Your task to perform on an android device: change the upload size in google photos Image 0: 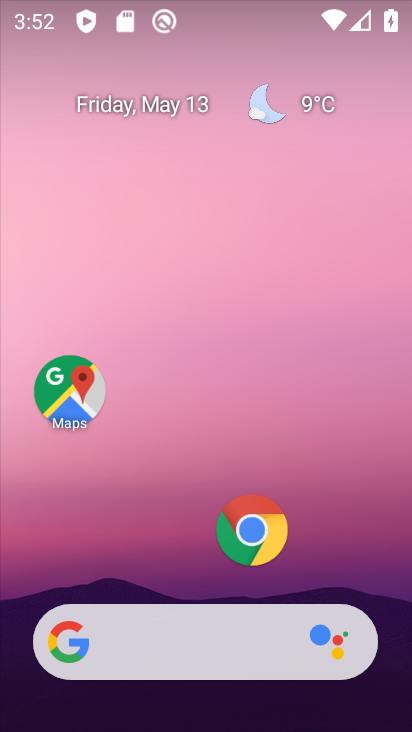
Step 0: drag from (185, 565) to (174, 0)
Your task to perform on an android device: change the upload size in google photos Image 1: 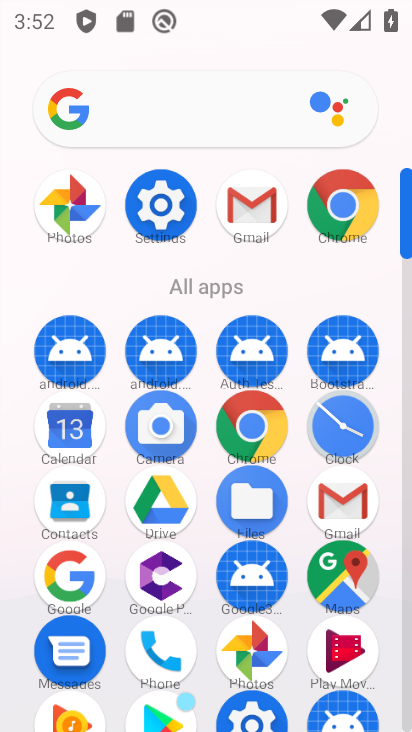
Step 1: click (75, 204)
Your task to perform on an android device: change the upload size in google photos Image 2: 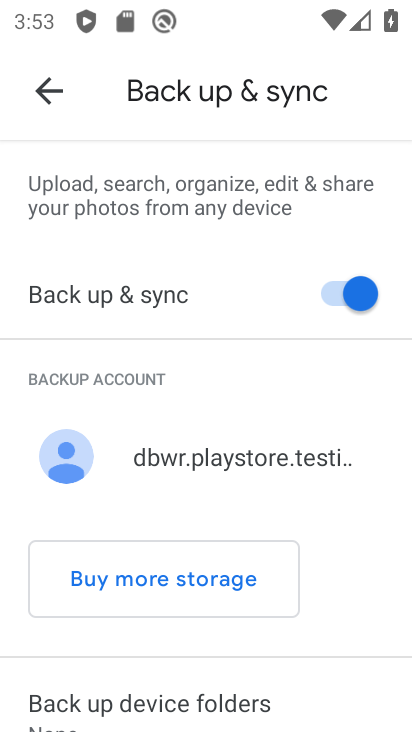
Step 2: press home button
Your task to perform on an android device: change the upload size in google photos Image 3: 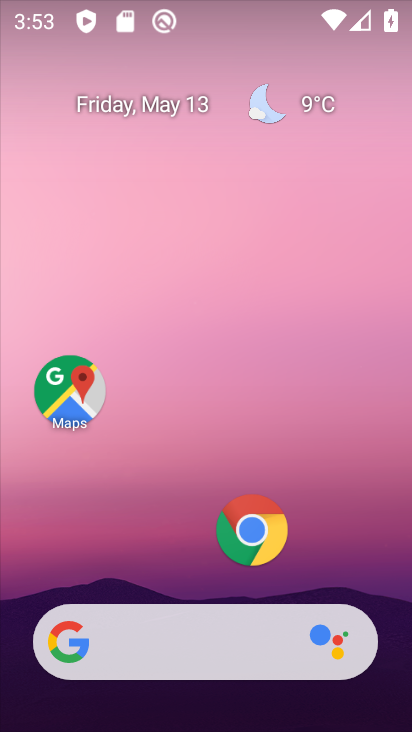
Step 3: drag from (193, 578) to (184, 3)
Your task to perform on an android device: change the upload size in google photos Image 4: 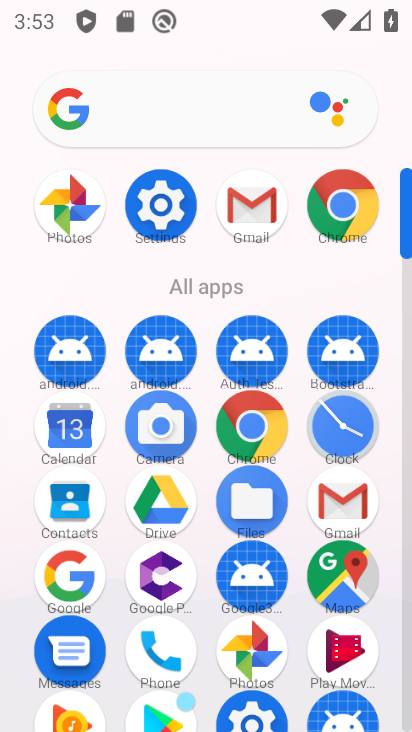
Step 4: click (68, 199)
Your task to perform on an android device: change the upload size in google photos Image 5: 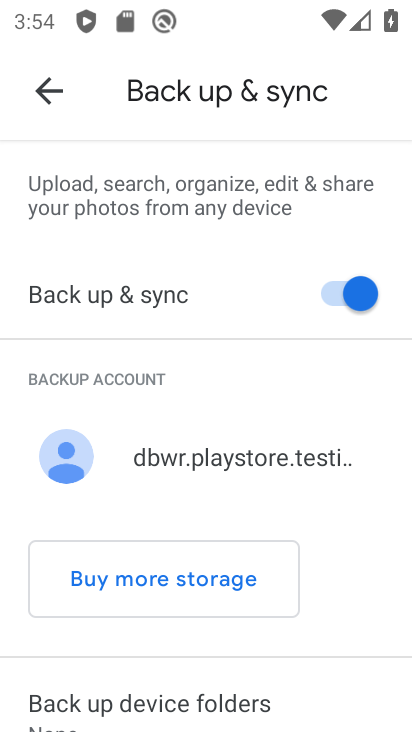
Step 5: drag from (243, 668) to (238, 128)
Your task to perform on an android device: change the upload size in google photos Image 6: 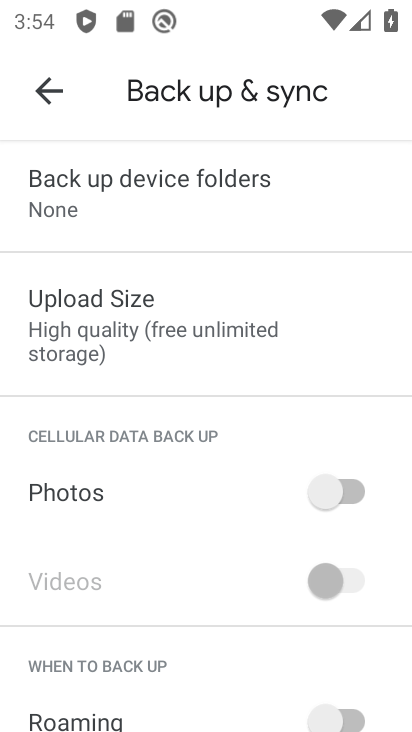
Step 6: click (146, 315)
Your task to perform on an android device: change the upload size in google photos Image 7: 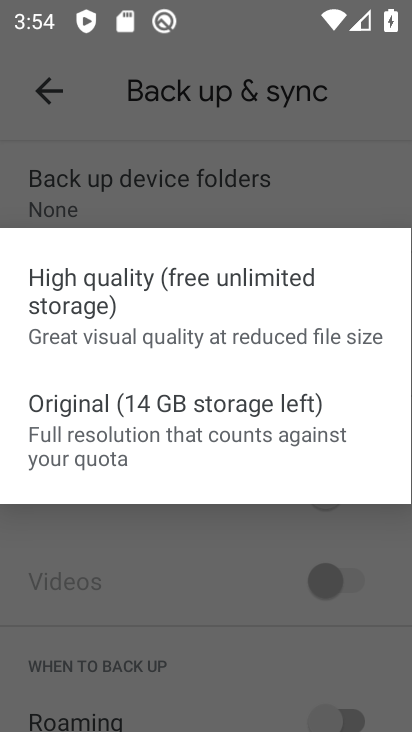
Step 7: click (173, 443)
Your task to perform on an android device: change the upload size in google photos Image 8: 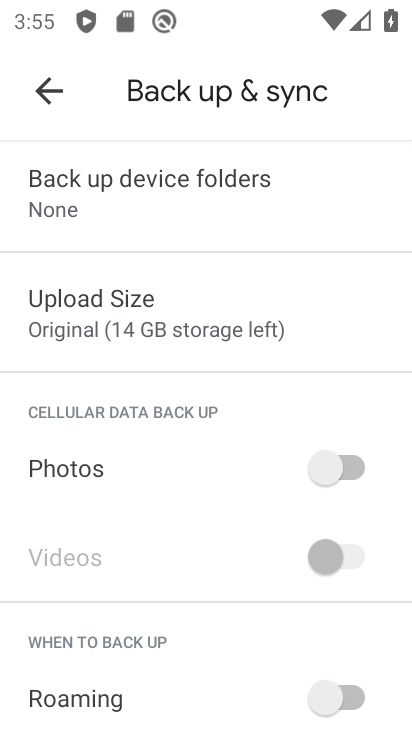
Step 8: click (183, 309)
Your task to perform on an android device: change the upload size in google photos Image 9: 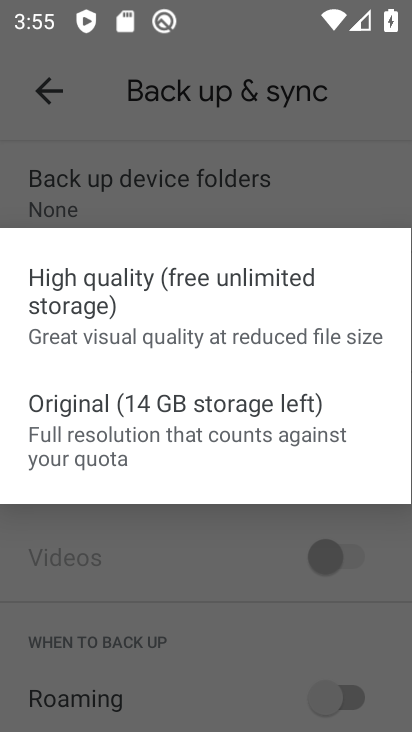
Step 9: click (133, 438)
Your task to perform on an android device: change the upload size in google photos Image 10: 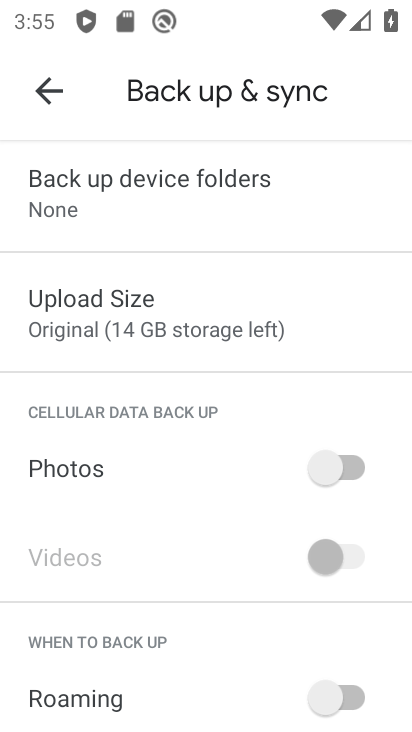
Step 10: task complete